Your task to perform on an android device: Open Youtube and go to the subscriptions tab Image 0: 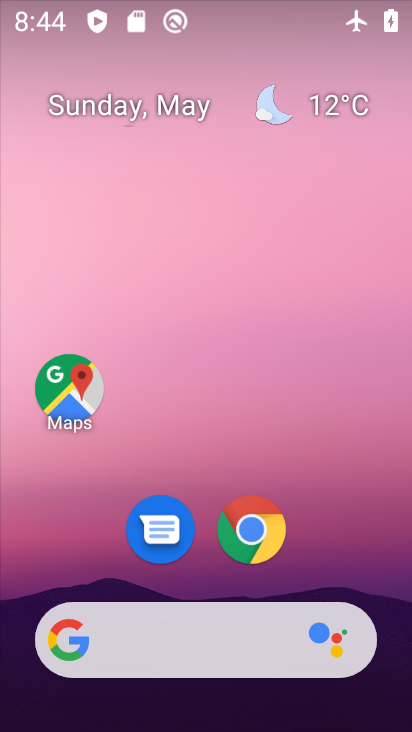
Step 0: drag from (326, 557) to (284, 41)
Your task to perform on an android device: Open Youtube and go to the subscriptions tab Image 1: 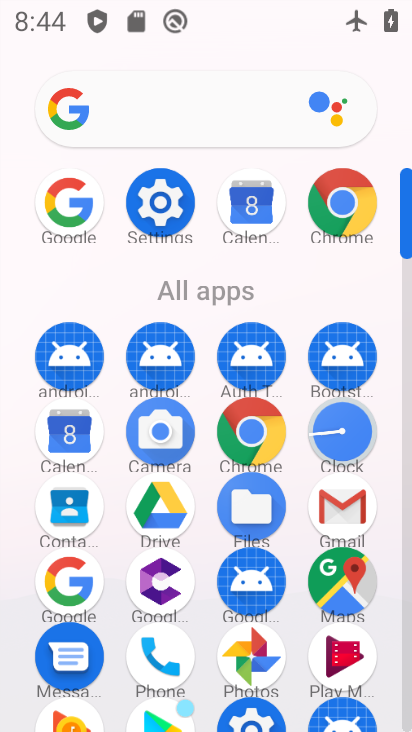
Step 1: drag from (207, 688) to (183, 308)
Your task to perform on an android device: Open Youtube and go to the subscriptions tab Image 2: 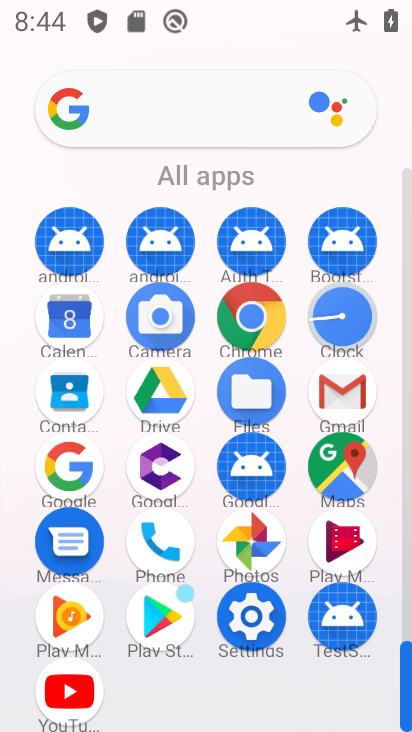
Step 2: click (80, 695)
Your task to perform on an android device: Open Youtube and go to the subscriptions tab Image 3: 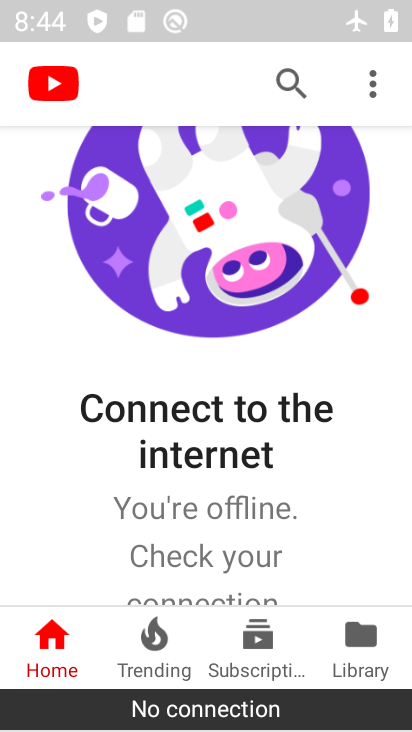
Step 3: click (258, 647)
Your task to perform on an android device: Open Youtube and go to the subscriptions tab Image 4: 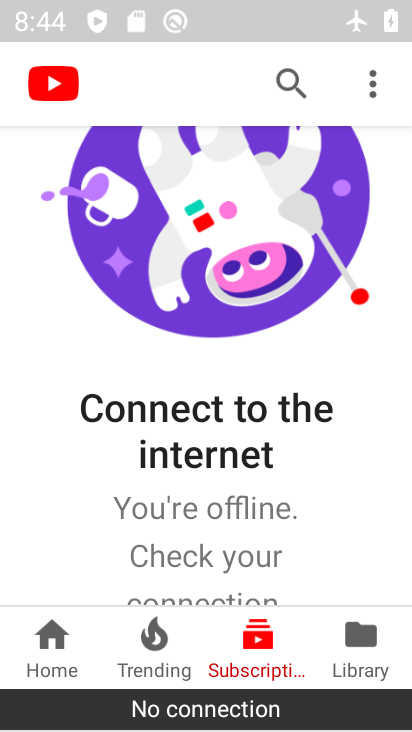
Step 4: task complete